Your task to perform on an android device: Check the weather Image 0: 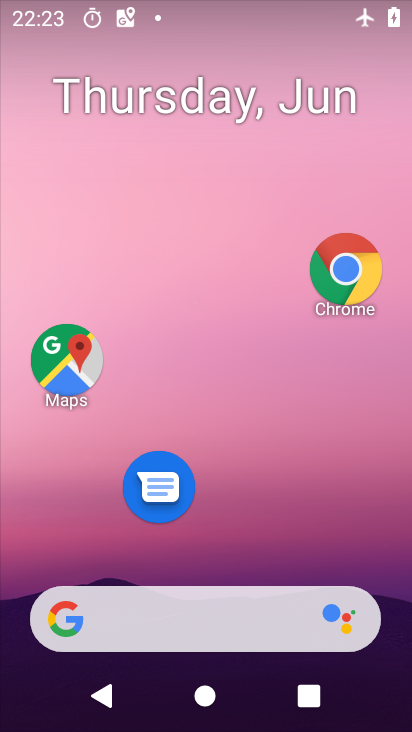
Step 0: click (325, 123)
Your task to perform on an android device: Check the weather Image 1: 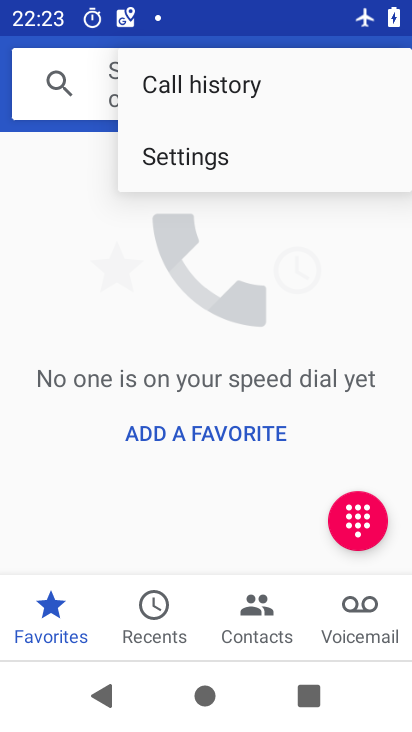
Step 1: press home button
Your task to perform on an android device: Check the weather Image 2: 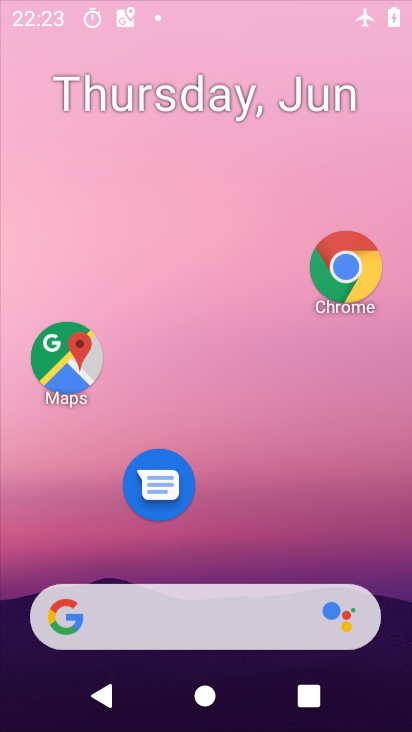
Step 2: drag from (172, 526) to (222, 40)
Your task to perform on an android device: Check the weather Image 3: 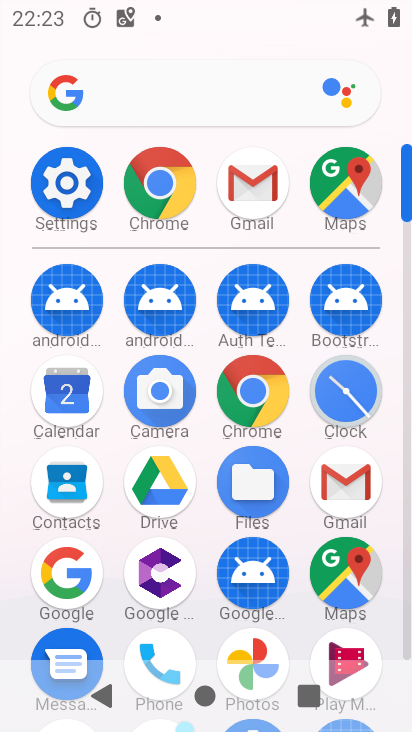
Step 3: click (354, 550)
Your task to perform on an android device: Check the weather Image 4: 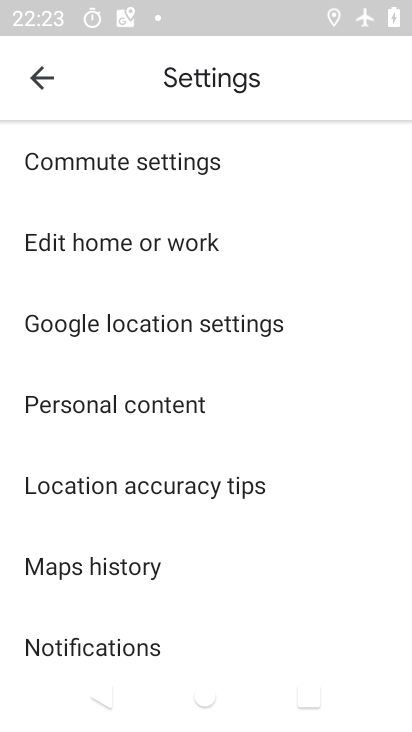
Step 4: press home button
Your task to perform on an android device: Check the weather Image 5: 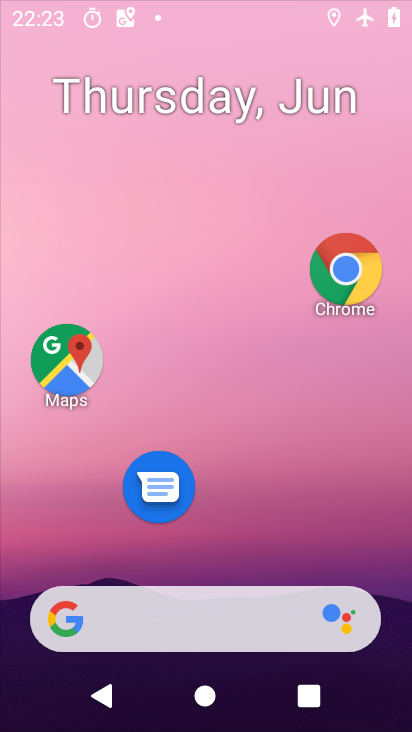
Step 5: drag from (223, 563) to (290, 100)
Your task to perform on an android device: Check the weather Image 6: 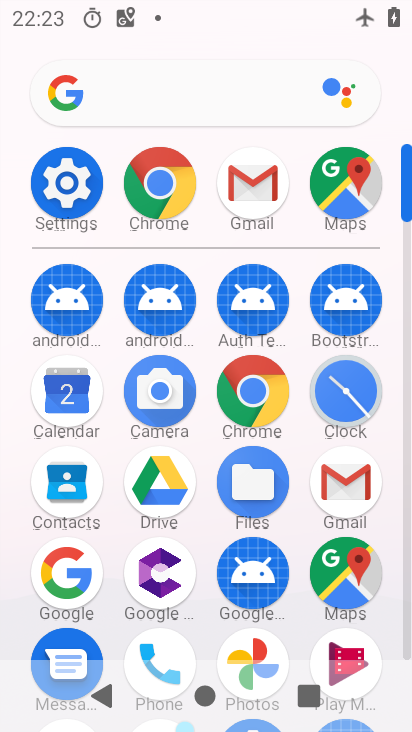
Step 6: click (165, 106)
Your task to perform on an android device: Check the weather Image 7: 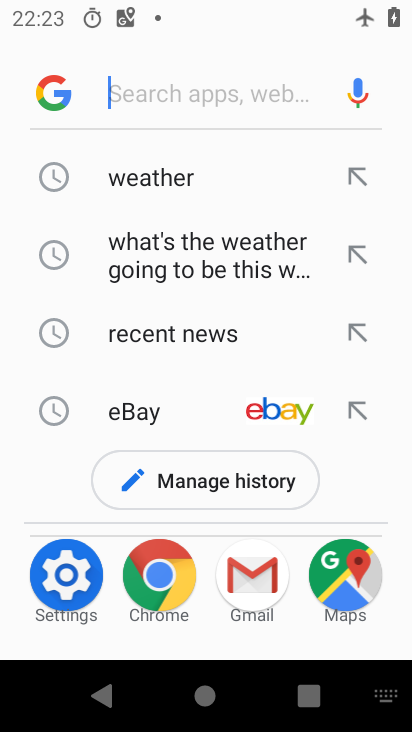
Step 7: click (120, 181)
Your task to perform on an android device: Check the weather Image 8: 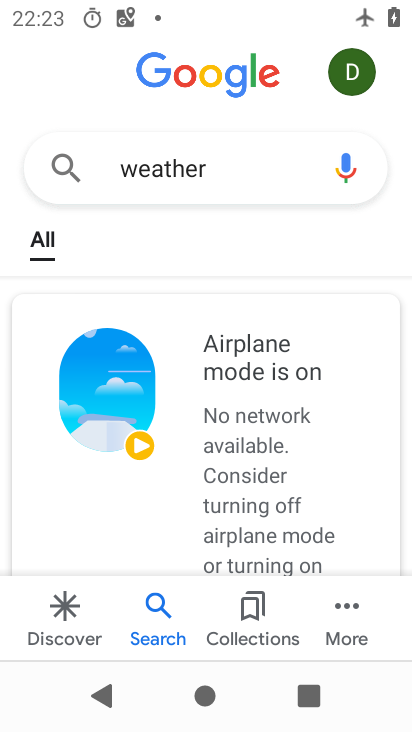
Step 8: task complete